Your task to perform on an android device: Go to Wikipedia Image 0: 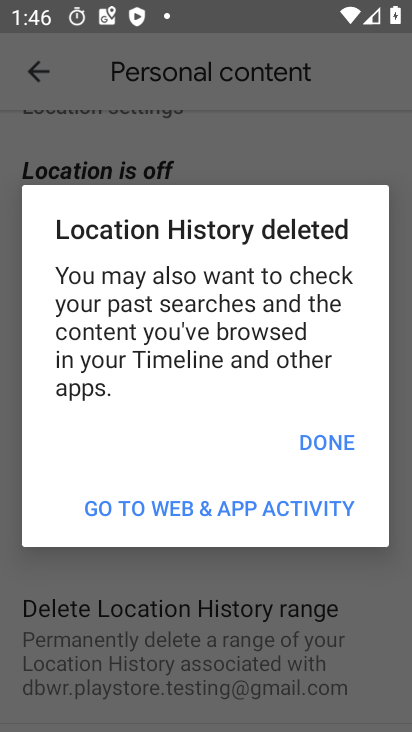
Step 0: press home button
Your task to perform on an android device: Go to Wikipedia Image 1: 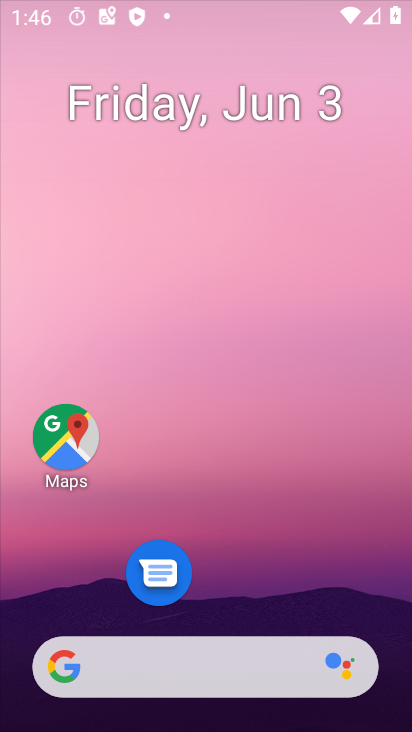
Step 1: drag from (303, 602) to (315, 39)
Your task to perform on an android device: Go to Wikipedia Image 2: 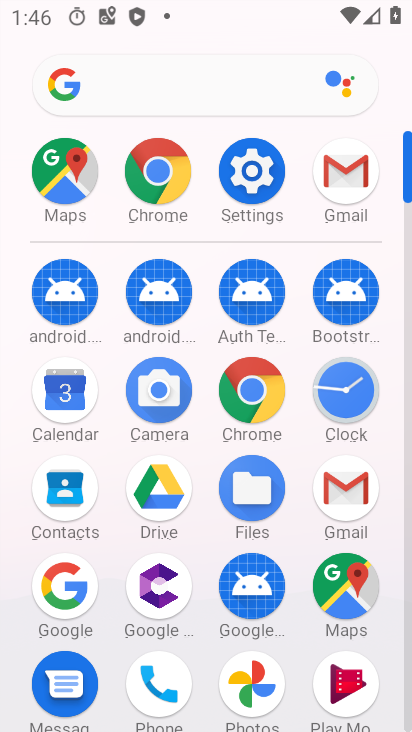
Step 2: click (269, 398)
Your task to perform on an android device: Go to Wikipedia Image 3: 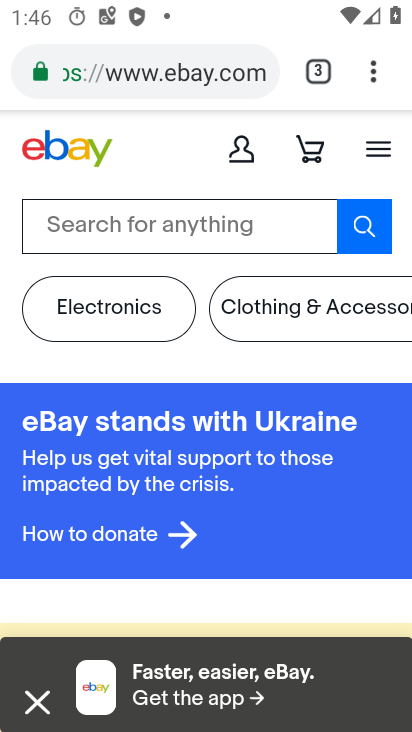
Step 3: click (373, 67)
Your task to perform on an android device: Go to Wikipedia Image 4: 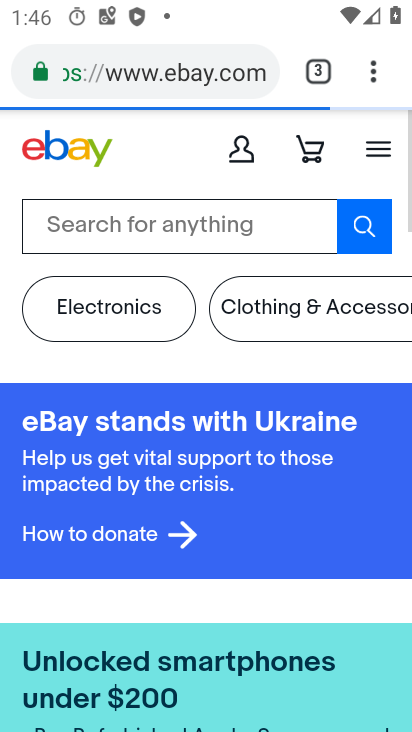
Step 4: drag from (366, 64) to (217, 122)
Your task to perform on an android device: Go to Wikipedia Image 5: 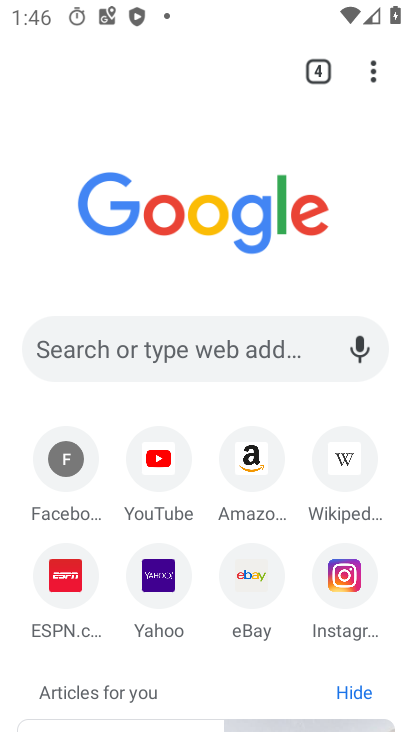
Step 5: click (348, 464)
Your task to perform on an android device: Go to Wikipedia Image 6: 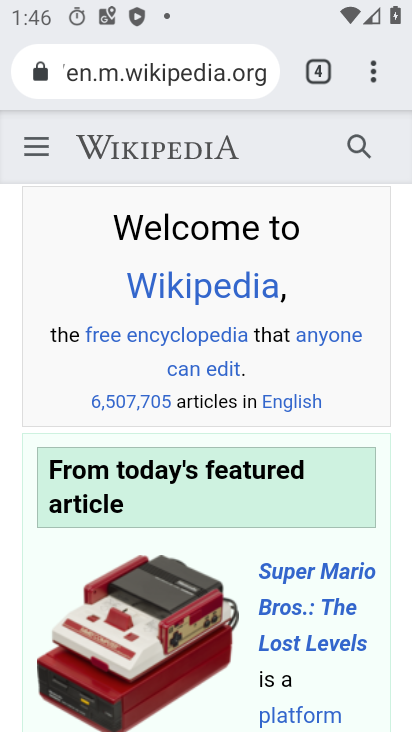
Step 6: task complete